Your task to perform on an android device: turn off smart reply in the gmail app Image 0: 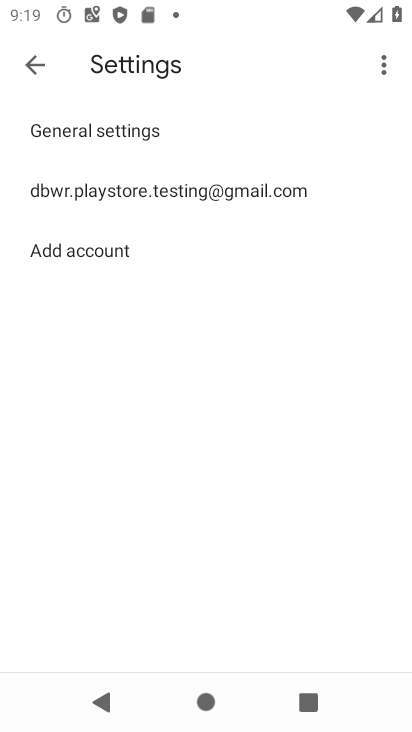
Step 0: click (35, 57)
Your task to perform on an android device: turn off smart reply in the gmail app Image 1: 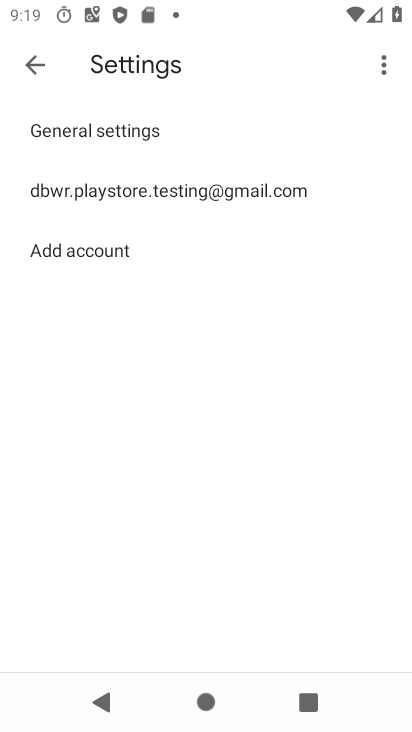
Step 1: click (37, 72)
Your task to perform on an android device: turn off smart reply in the gmail app Image 2: 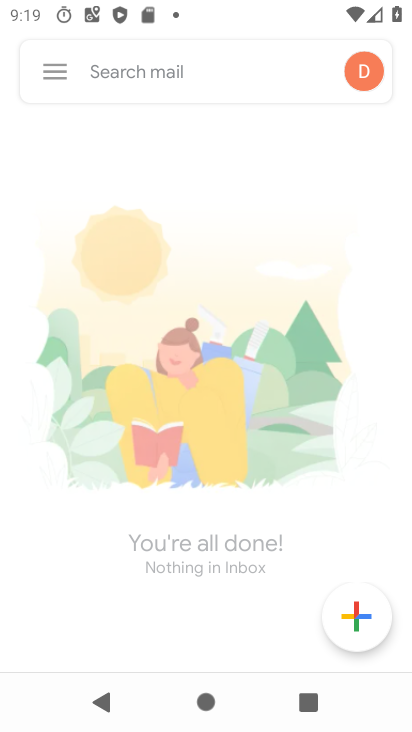
Step 2: click (37, 72)
Your task to perform on an android device: turn off smart reply in the gmail app Image 3: 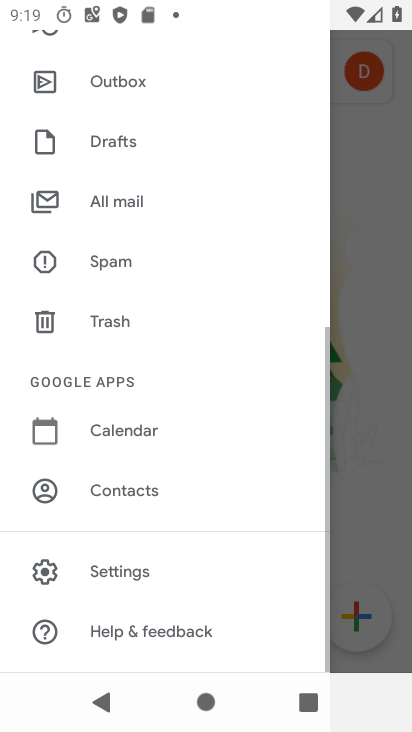
Step 3: click (125, 557)
Your task to perform on an android device: turn off smart reply in the gmail app Image 4: 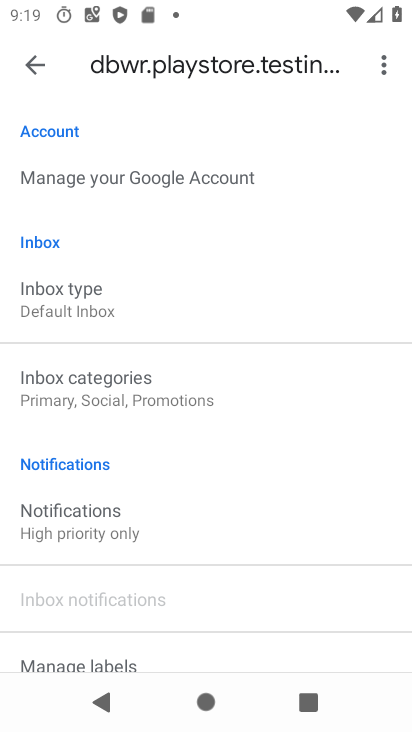
Step 4: task complete